Your task to perform on an android device: toggle airplane mode Image 0: 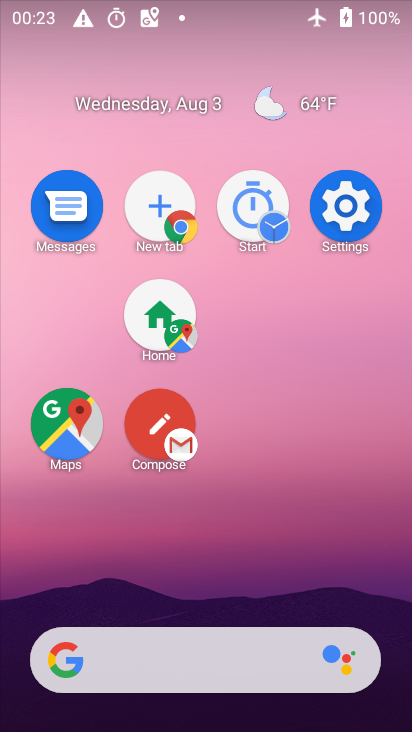
Step 0: drag from (339, 645) to (336, 315)
Your task to perform on an android device: toggle airplane mode Image 1: 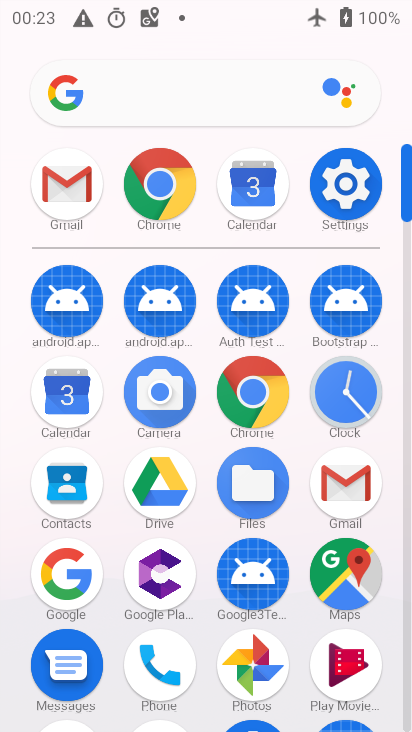
Step 1: click (342, 183)
Your task to perform on an android device: toggle airplane mode Image 2: 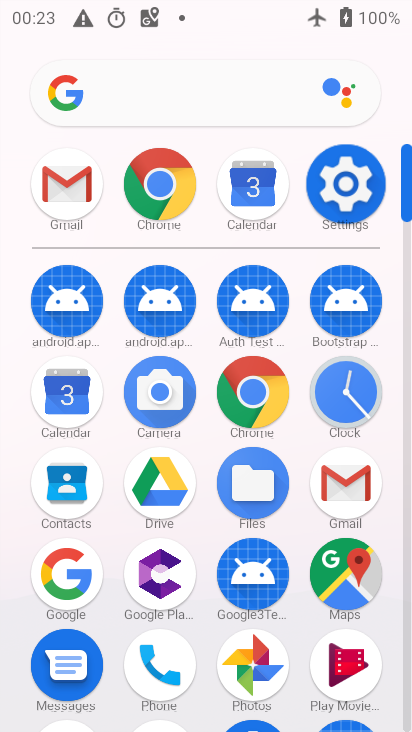
Step 2: click (343, 184)
Your task to perform on an android device: toggle airplane mode Image 3: 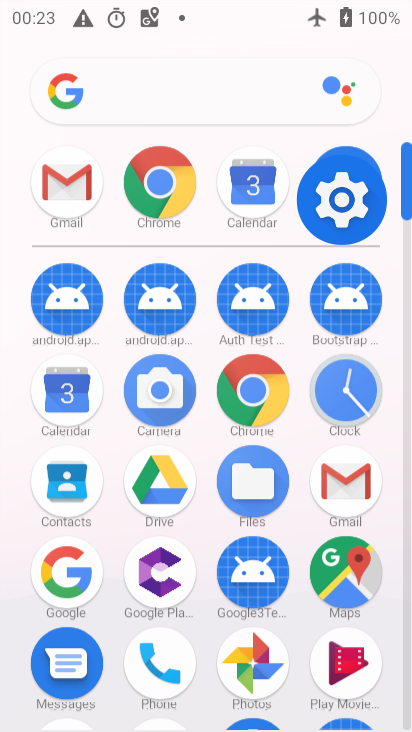
Step 3: click (343, 184)
Your task to perform on an android device: toggle airplane mode Image 4: 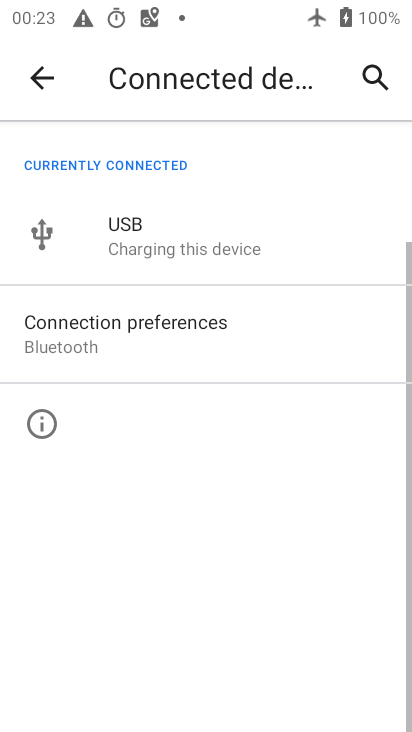
Step 4: click (43, 80)
Your task to perform on an android device: toggle airplane mode Image 5: 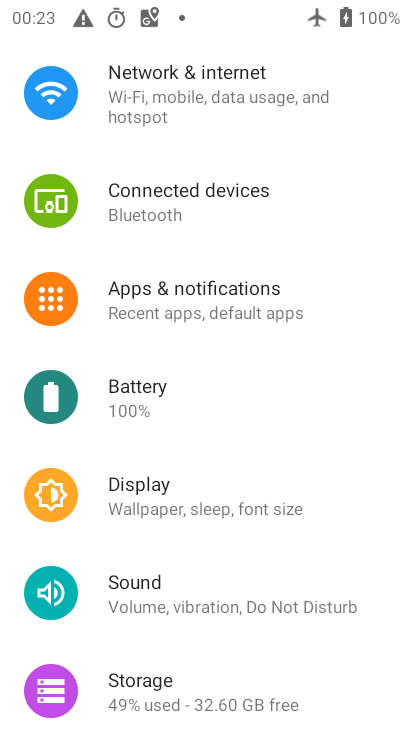
Step 5: click (230, 102)
Your task to perform on an android device: toggle airplane mode Image 6: 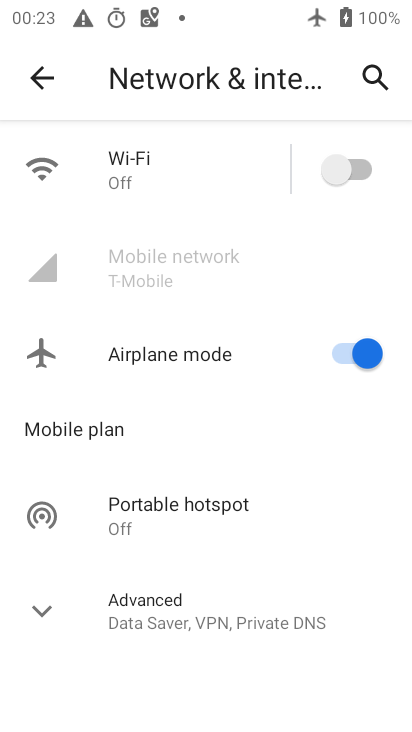
Step 6: drag from (337, 170) to (410, 493)
Your task to perform on an android device: toggle airplane mode Image 7: 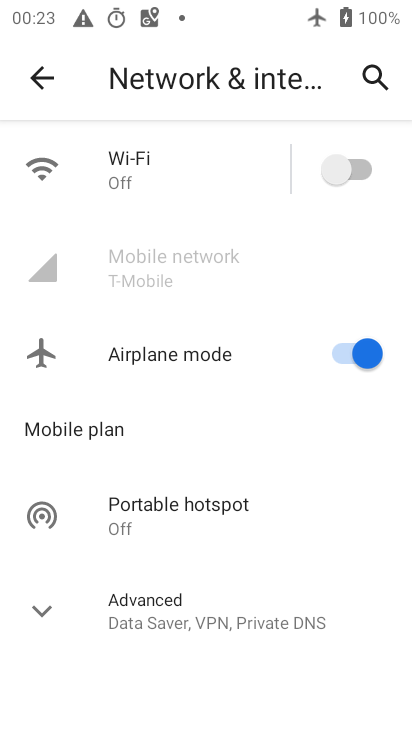
Step 7: click (356, 343)
Your task to perform on an android device: toggle airplane mode Image 8: 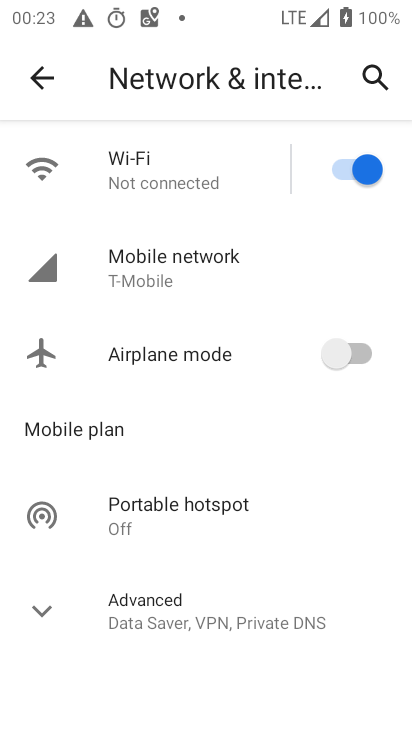
Step 8: task complete